Your task to perform on an android device: see sites visited before in the chrome app Image 0: 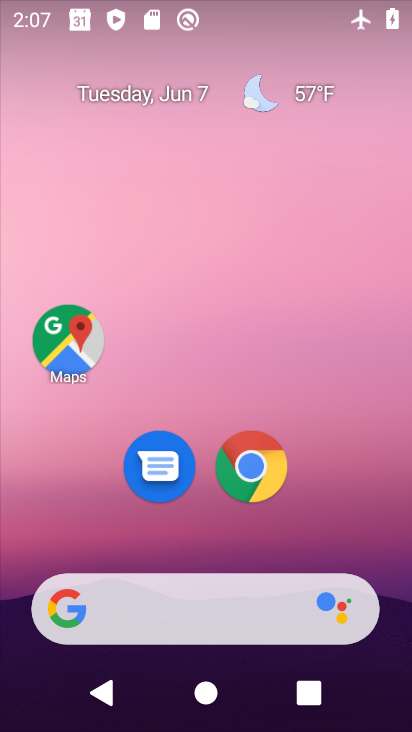
Step 0: click (248, 455)
Your task to perform on an android device: see sites visited before in the chrome app Image 1: 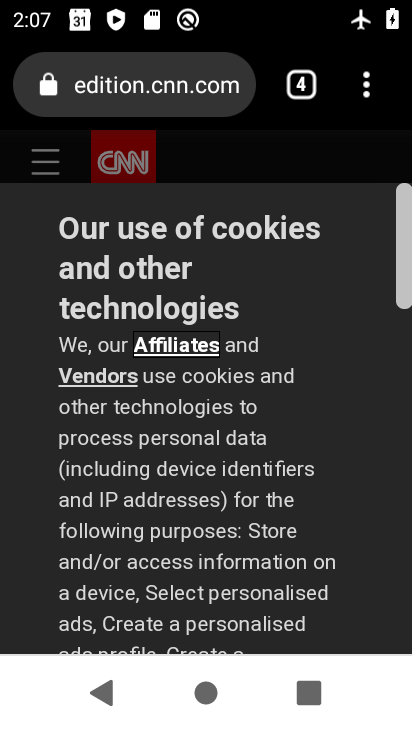
Step 1: task complete